Your task to perform on an android device: toggle data saver in the chrome app Image 0: 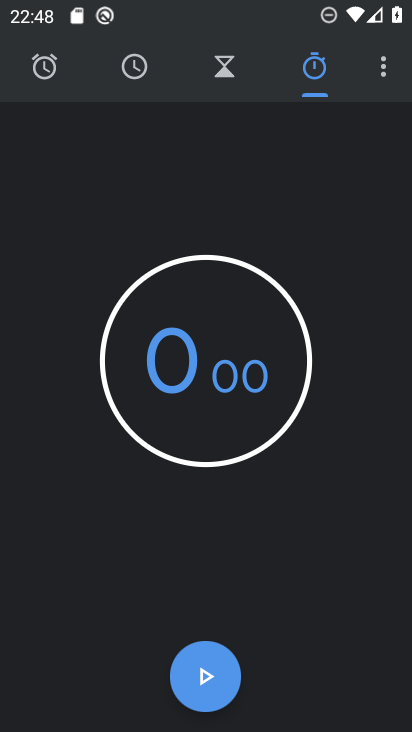
Step 0: press home button
Your task to perform on an android device: toggle data saver in the chrome app Image 1: 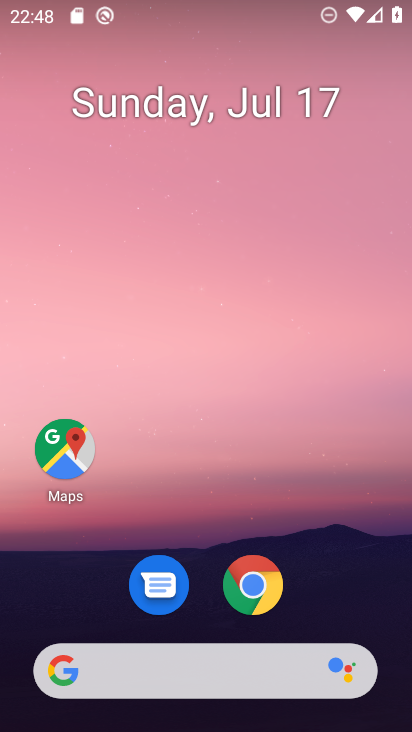
Step 1: click (242, 588)
Your task to perform on an android device: toggle data saver in the chrome app Image 2: 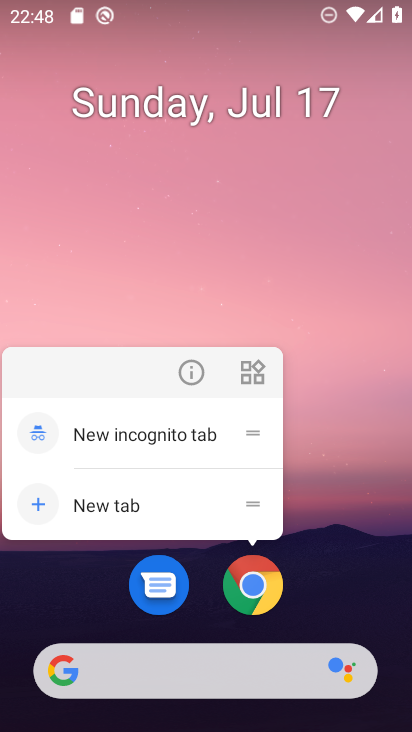
Step 2: click (249, 584)
Your task to perform on an android device: toggle data saver in the chrome app Image 3: 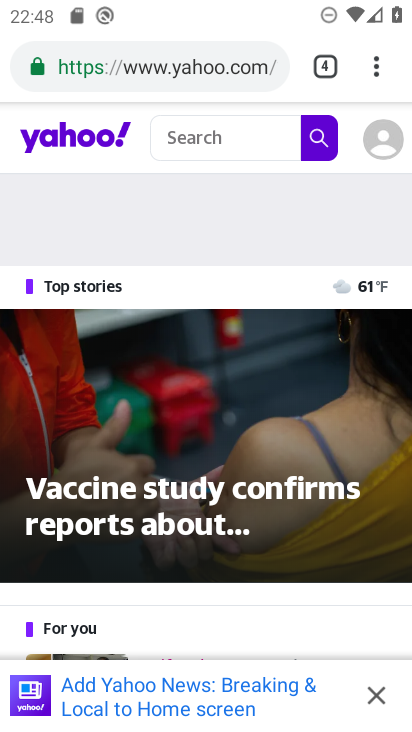
Step 3: drag from (371, 68) to (181, 587)
Your task to perform on an android device: toggle data saver in the chrome app Image 4: 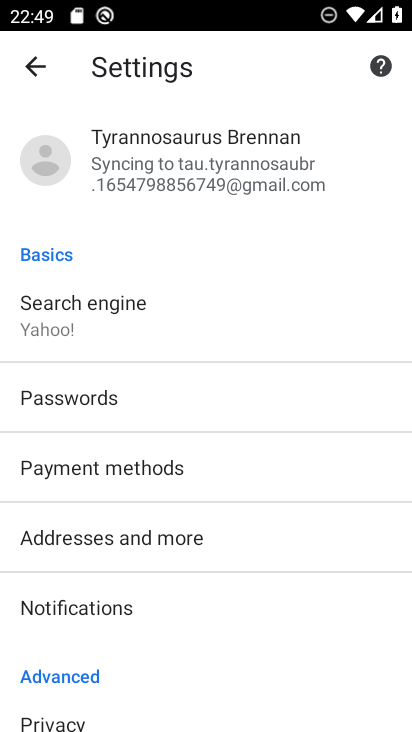
Step 4: drag from (170, 643) to (260, 252)
Your task to perform on an android device: toggle data saver in the chrome app Image 5: 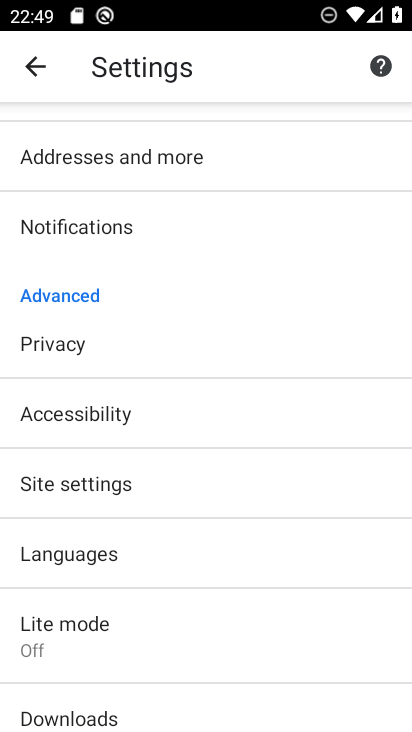
Step 5: click (111, 625)
Your task to perform on an android device: toggle data saver in the chrome app Image 6: 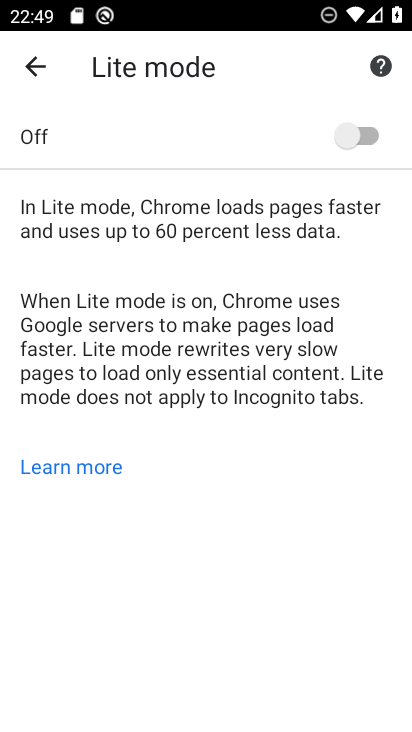
Step 6: click (372, 129)
Your task to perform on an android device: toggle data saver in the chrome app Image 7: 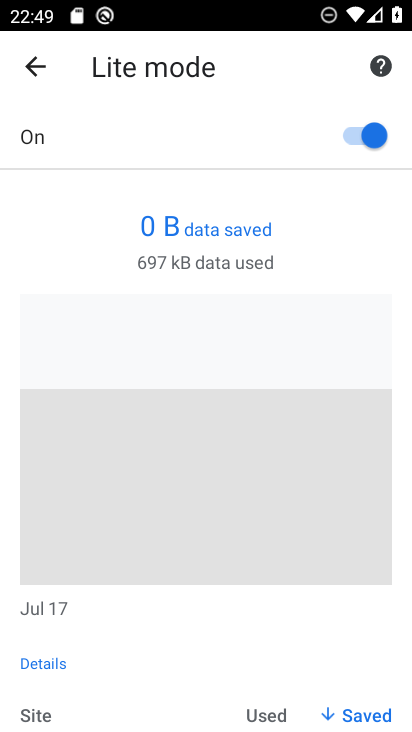
Step 7: task complete